Your task to perform on an android device: Open Google Maps Image 0: 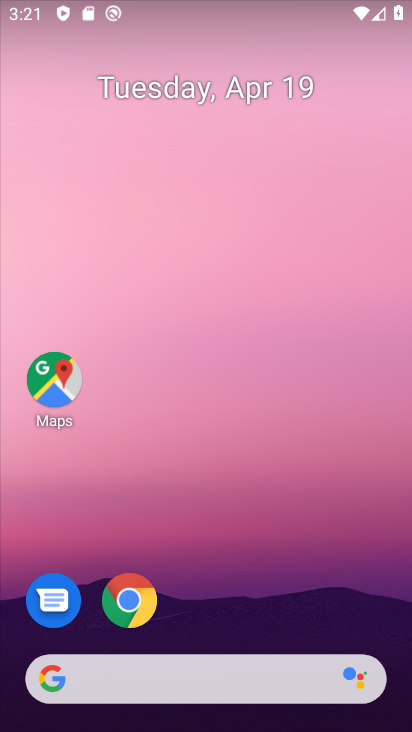
Step 0: click (68, 380)
Your task to perform on an android device: Open Google Maps Image 1: 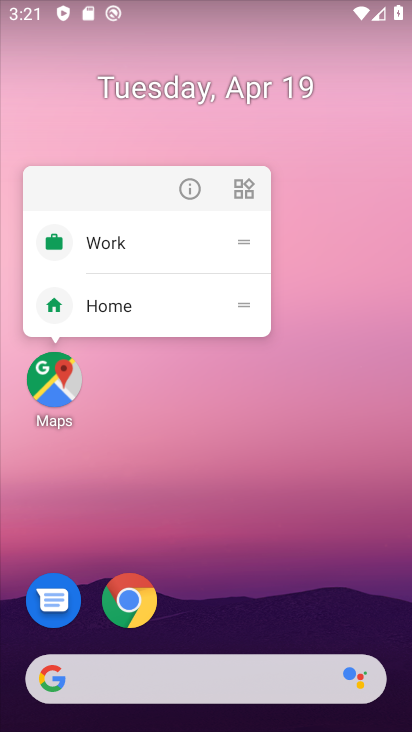
Step 1: click (59, 383)
Your task to perform on an android device: Open Google Maps Image 2: 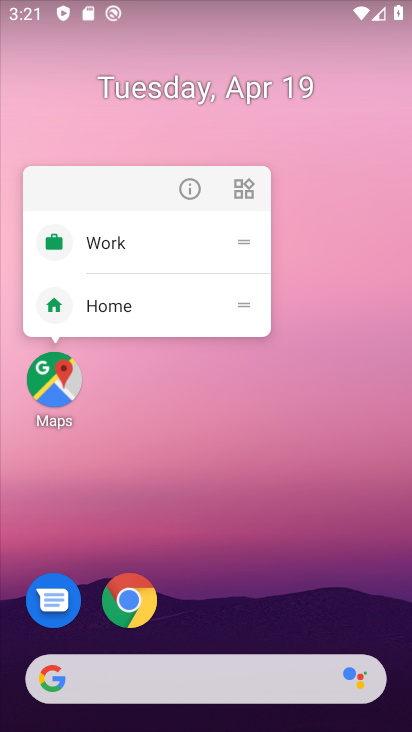
Step 2: click (59, 387)
Your task to perform on an android device: Open Google Maps Image 3: 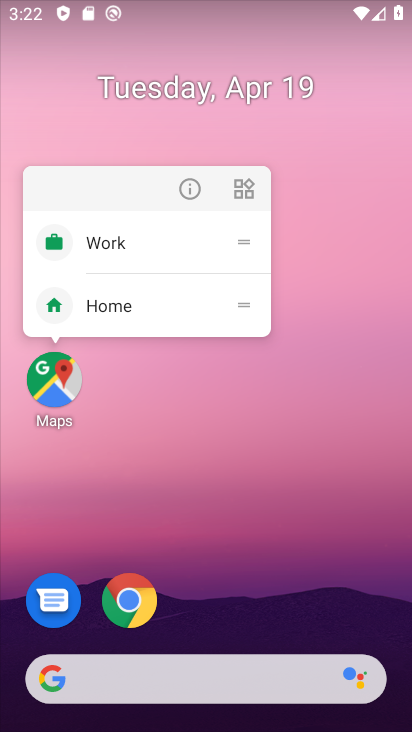
Step 3: click (59, 387)
Your task to perform on an android device: Open Google Maps Image 4: 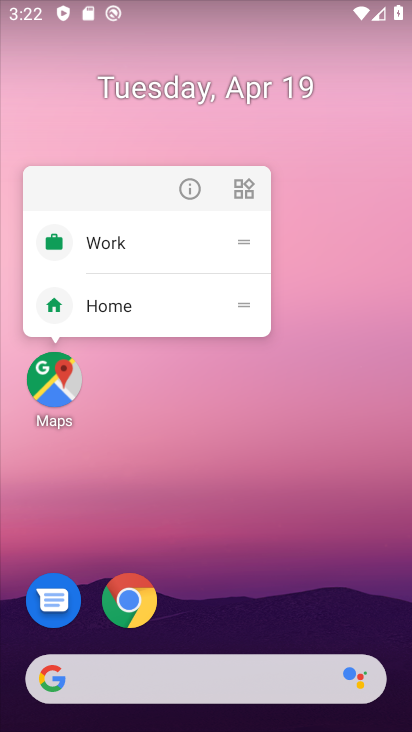
Step 4: click (52, 383)
Your task to perform on an android device: Open Google Maps Image 5: 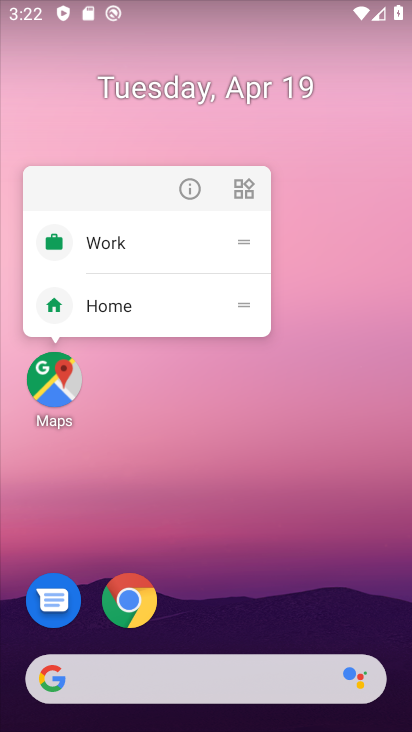
Step 5: click (52, 383)
Your task to perform on an android device: Open Google Maps Image 6: 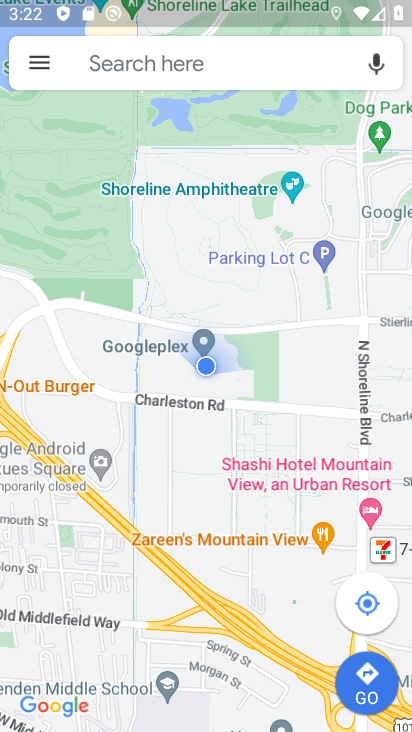
Step 6: click (52, 383)
Your task to perform on an android device: Open Google Maps Image 7: 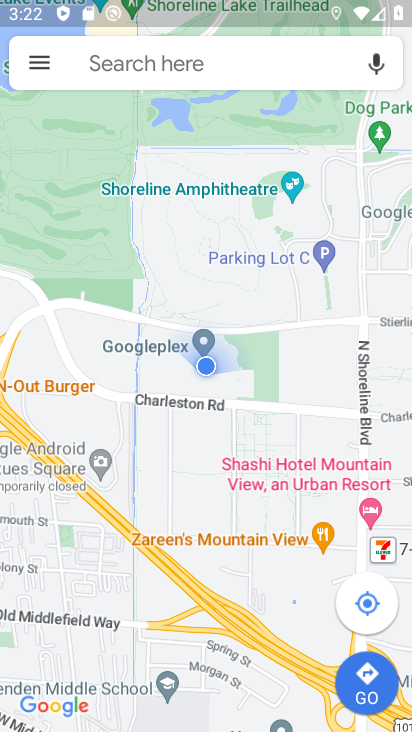
Step 7: task complete